Your task to perform on an android device: change the clock display to analog Image 0: 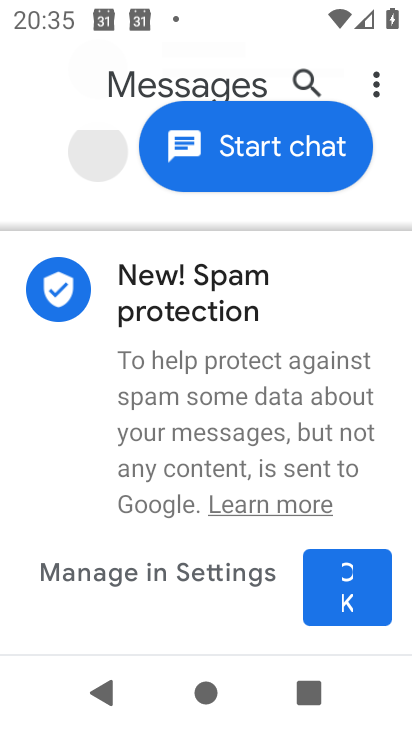
Step 0: press home button
Your task to perform on an android device: change the clock display to analog Image 1: 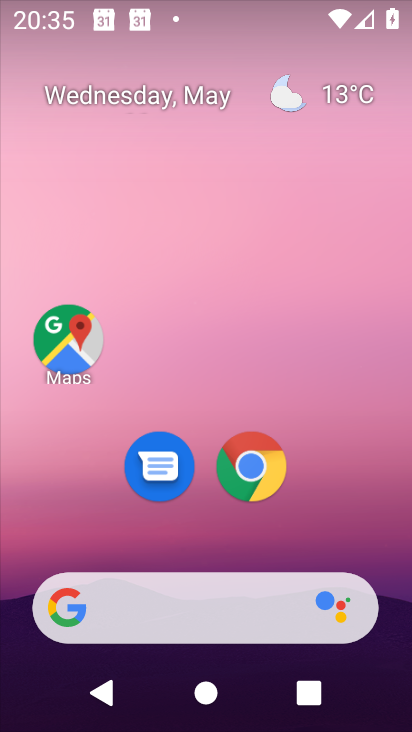
Step 1: drag from (206, 540) to (233, 19)
Your task to perform on an android device: change the clock display to analog Image 2: 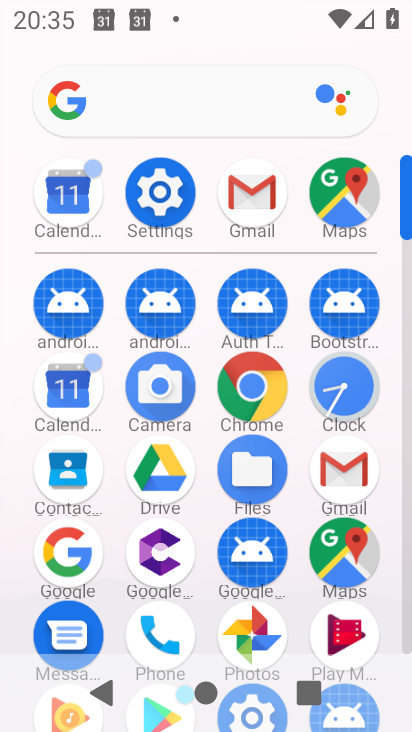
Step 2: click (342, 382)
Your task to perform on an android device: change the clock display to analog Image 3: 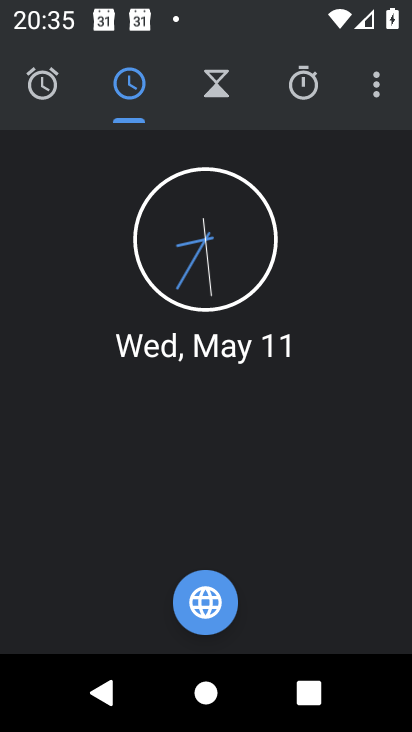
Step 3: click (372, 84)
Your task to perform on an android device: change the clock display to analog Image 4: 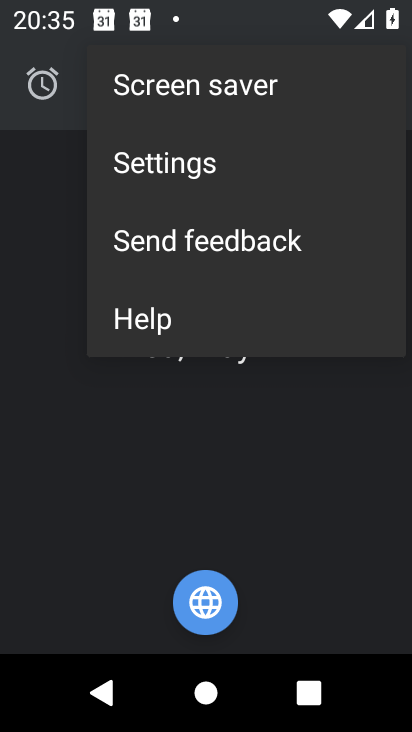
Step 4: click (233, 169)
Your task to perform on an android device: change the clock display to analog Image 5: 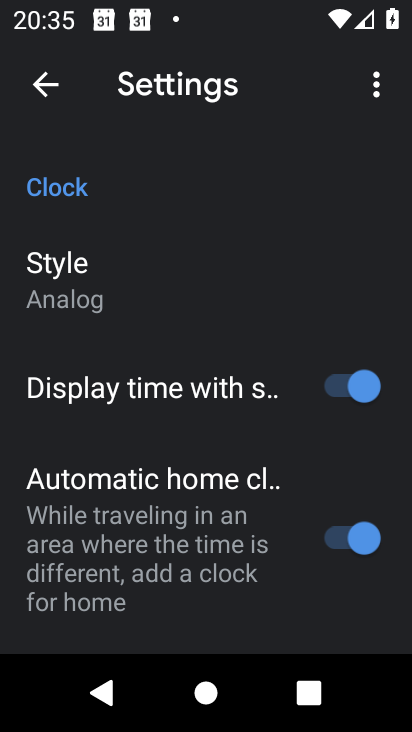
Step 5: click (107, 295)
Your task to perform on an android device: change the clock display to analog Image 6: 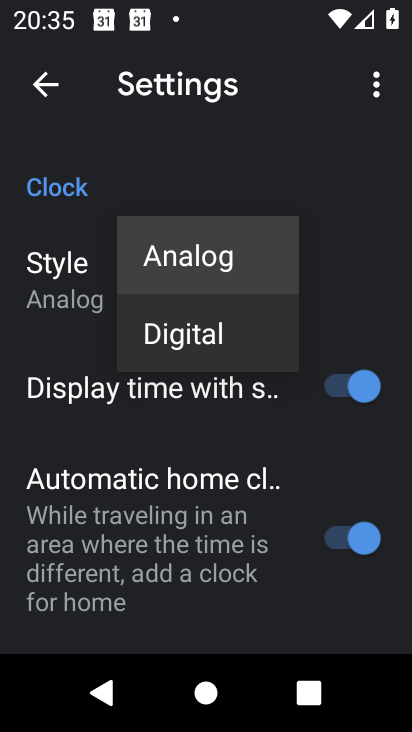
Step 6: click (168, 242)
Your task to perform on an android device: change the clock display to analog Image 7: 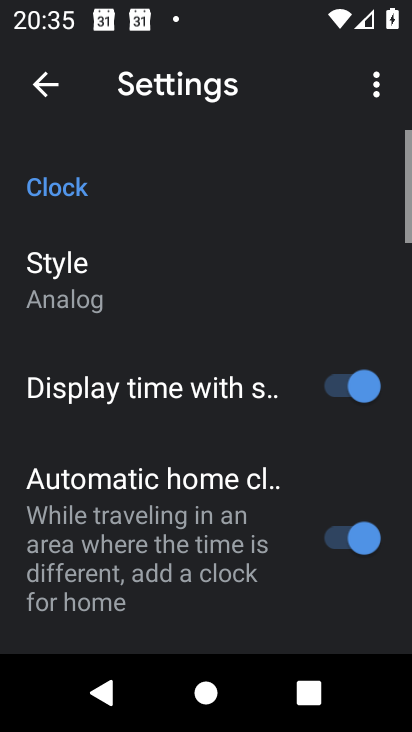
Step 7: task complete